Your task to perform on an android device: remove spam from my inbox in the gmail app Image 0: 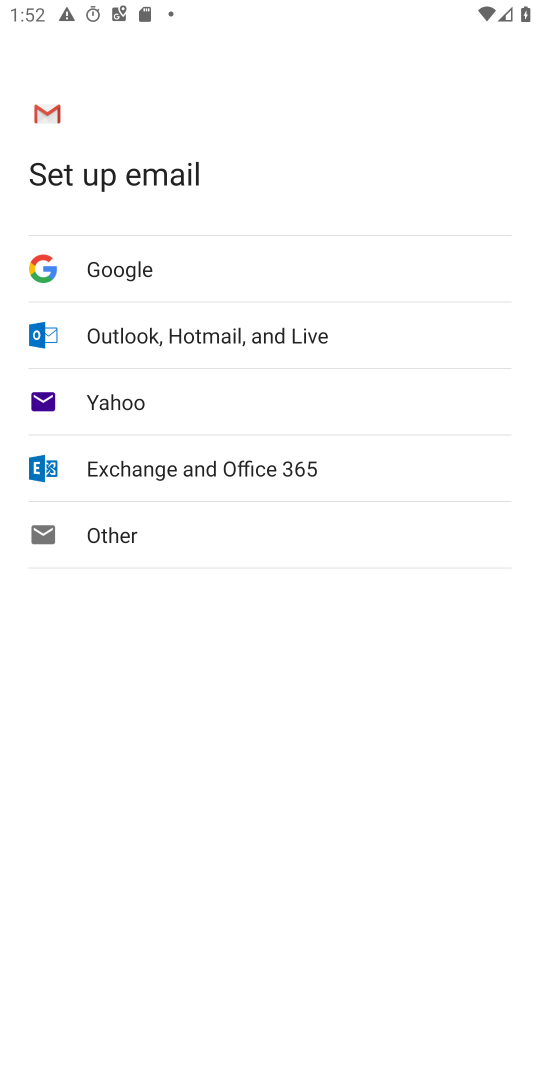
Step 0: press home button
Your task to perform on an android device: remove spam from my inbox in the gmail app Image 1: 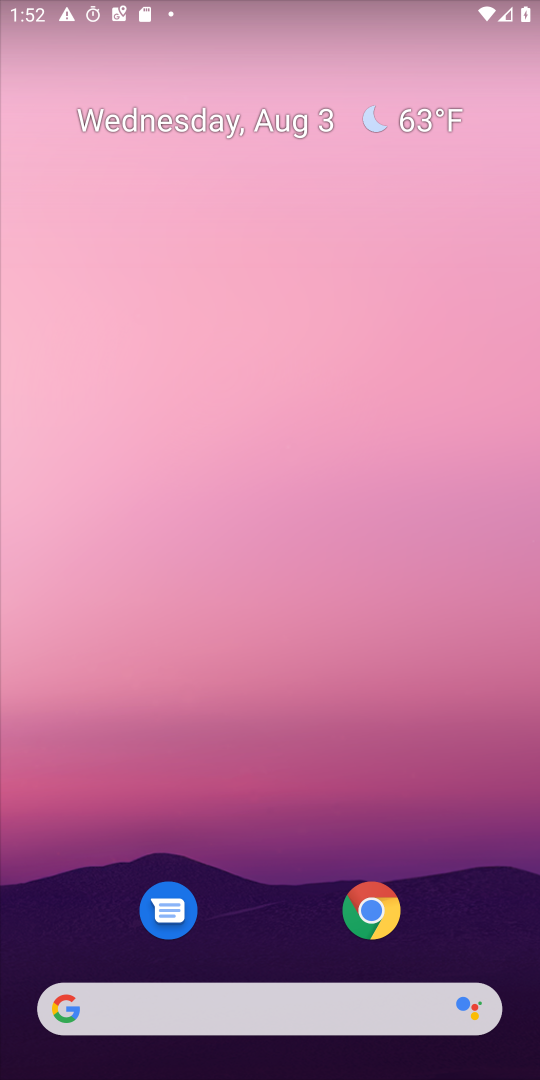
Step 1: drag from (360, 802) to (349, 6)
Your task to perform on an android device: remove spam from my inbox in the gmail app Image 2: 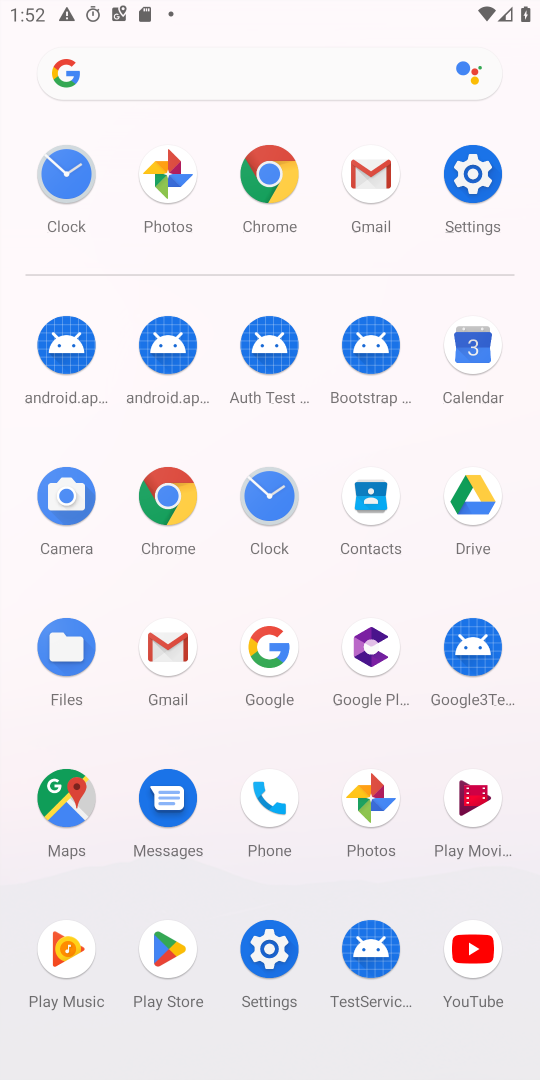
Step 2: click (171, 654)
Your task to perform on an android device: remove spam from my inbox in the gmail app Image 3: 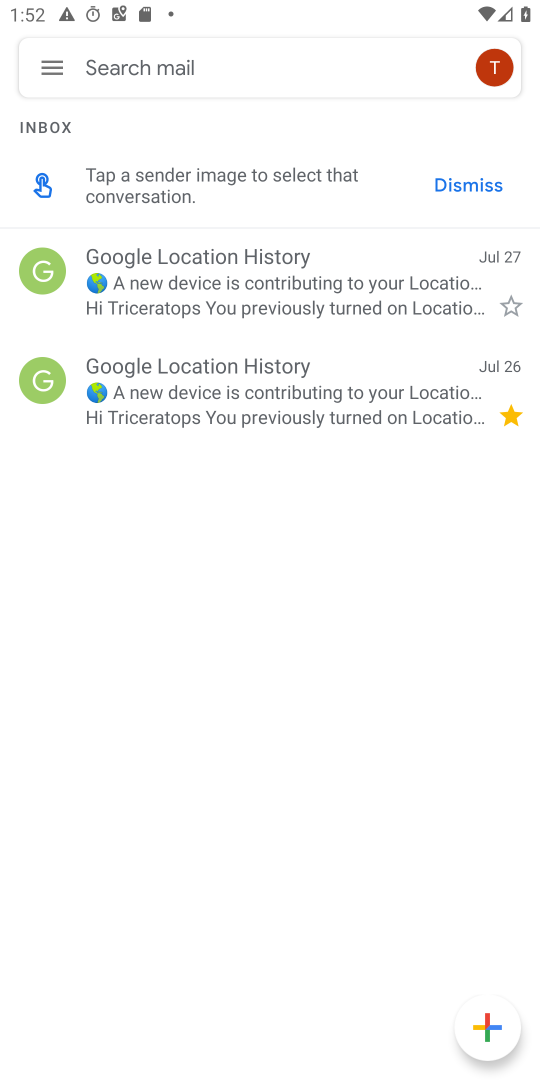
Step 3: click (50, 56)
Your task to perform on an android device: remove spam from my inbox in the gmail app Image 4: 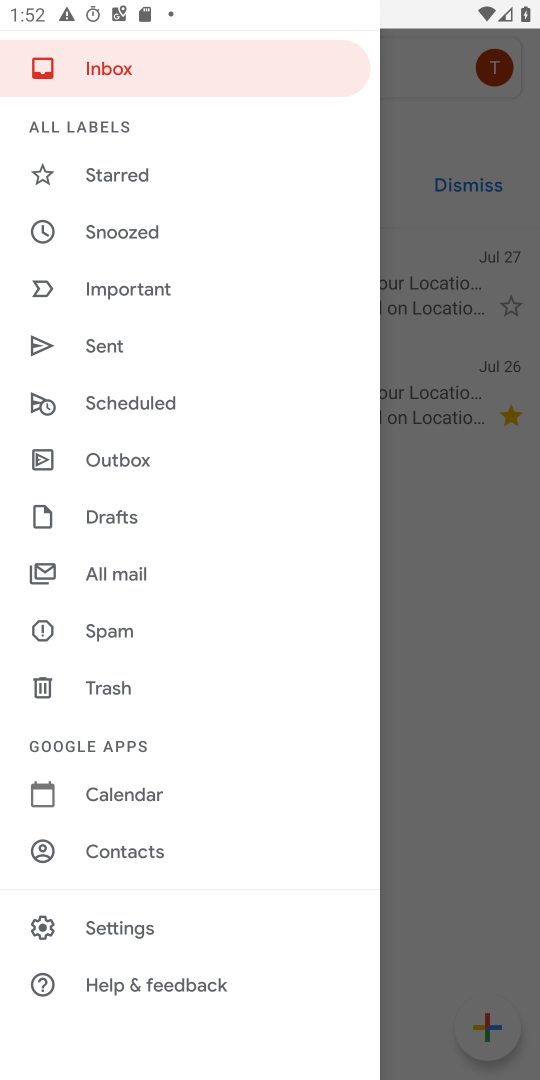
Step 4: click (118, 634)
Your task to perform on an android device: remove spam from my inbox in the gmail app Image 5: 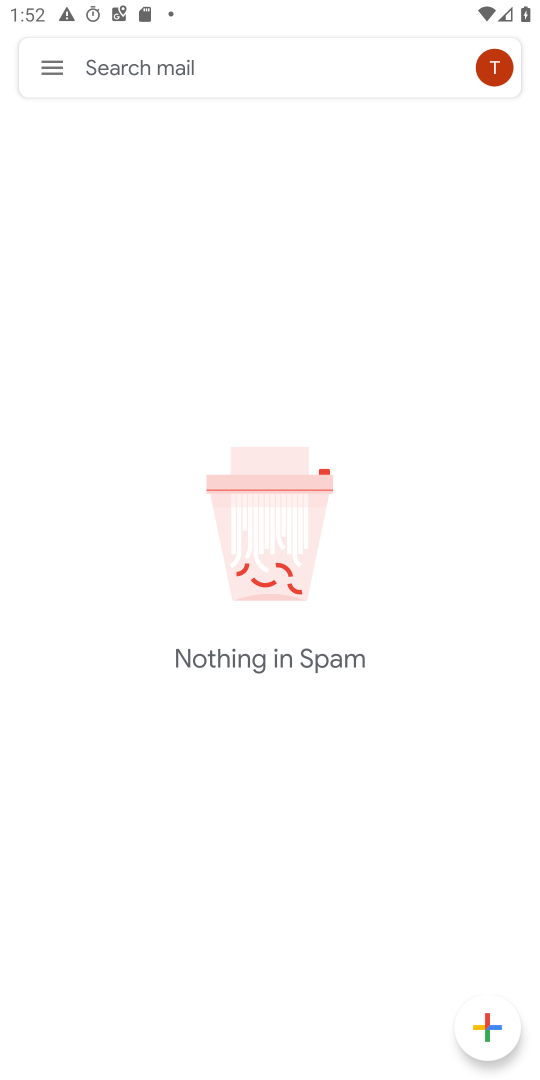
Step 5: task complete